Your task to perform on an android device: see creations saved in the google photos Image 0: 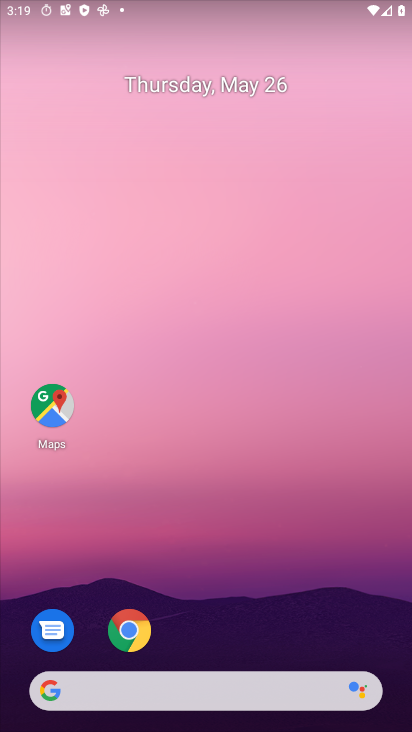
Step 0: drag from (278, 598) to (285, 393)
Your task to perform on an android device: see creations saved in the google photos Image 1: 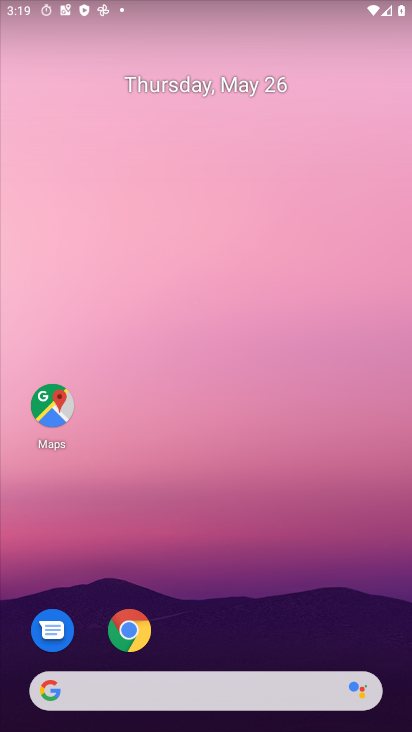
Step 1: drag from (232, 655) to (244, 89)
Your task to perform on an android device: see creations saved in the google photos Image 2: 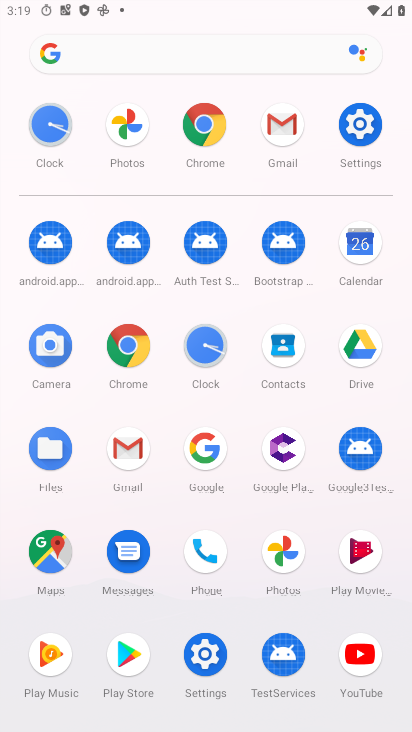
Step 2: click (135, 113)
Your task to perform on an android device: see creations saved in the google photos Image 3: 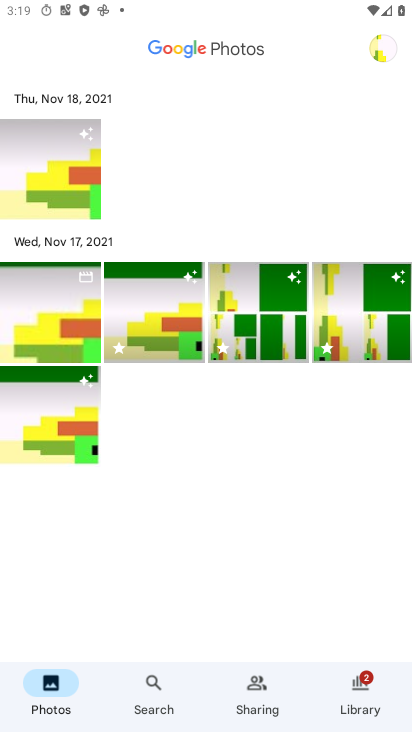
Step 3: task complete